Your task to perform on an android device: Show me recent news Image 0: 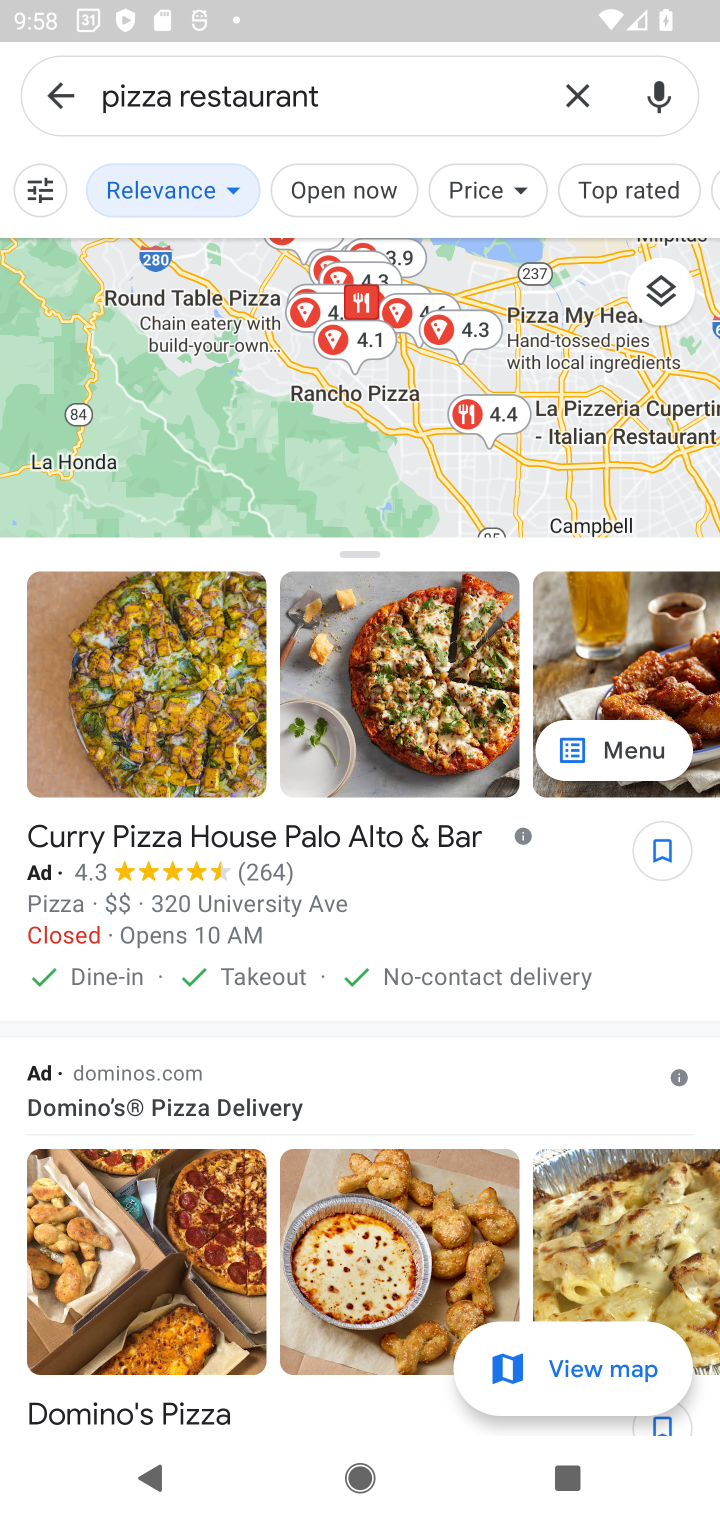
Step 0: press home button
Your task to perform on an android device: Show me recent news Image 1: 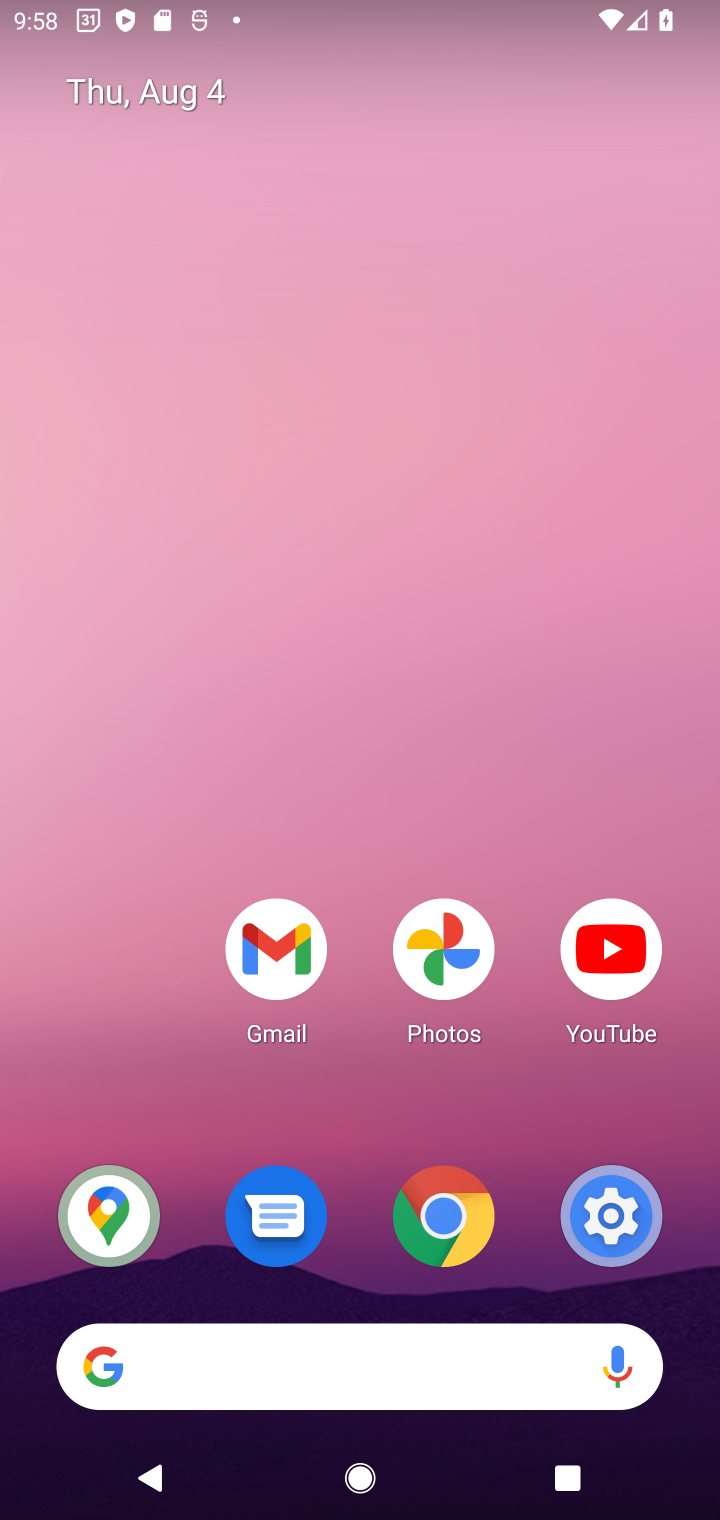
Step 1: drag from (220, 1368) to (427, 298)
Your task to perform on an android device: Show me recent news Image 2: 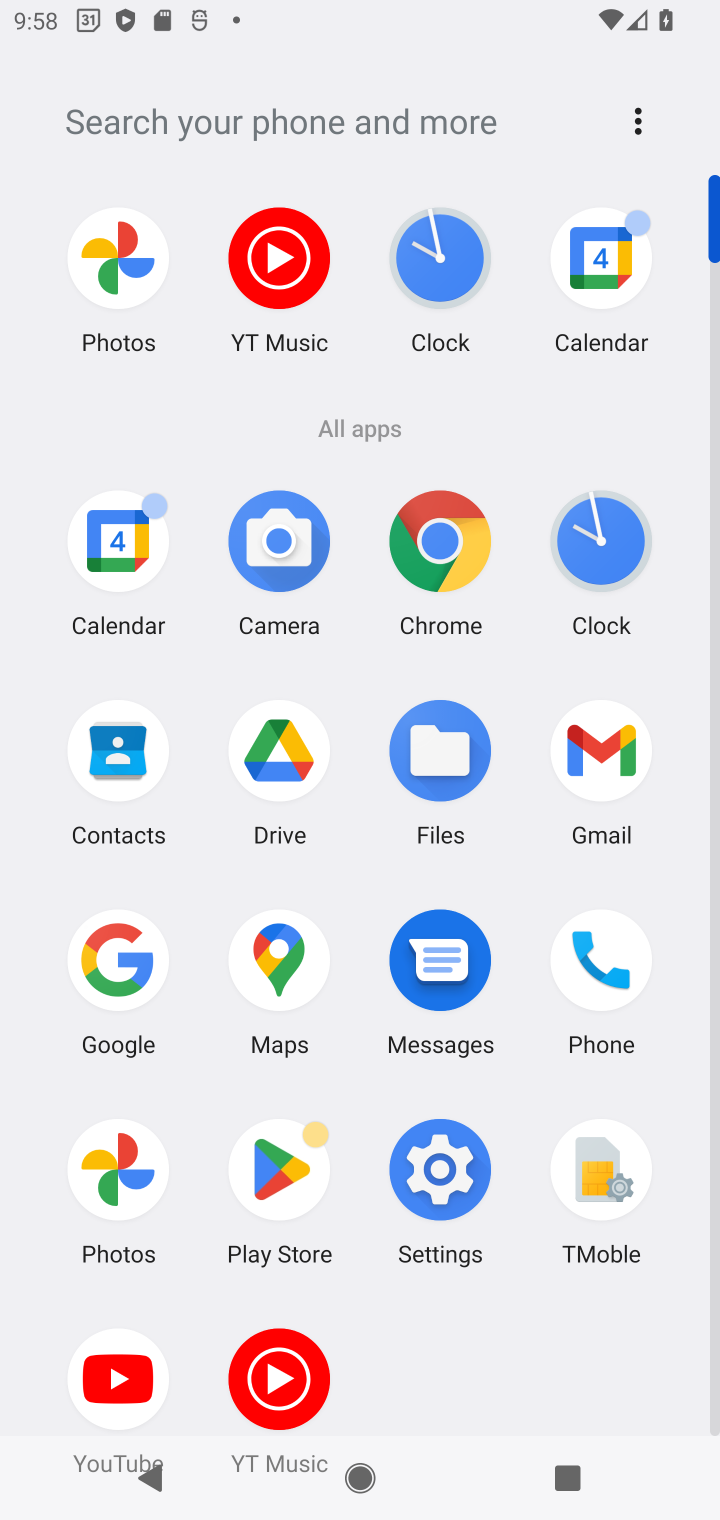
Step 2: click (116, 958)
Your task to perform on an android device: Show me recent news Image 3: 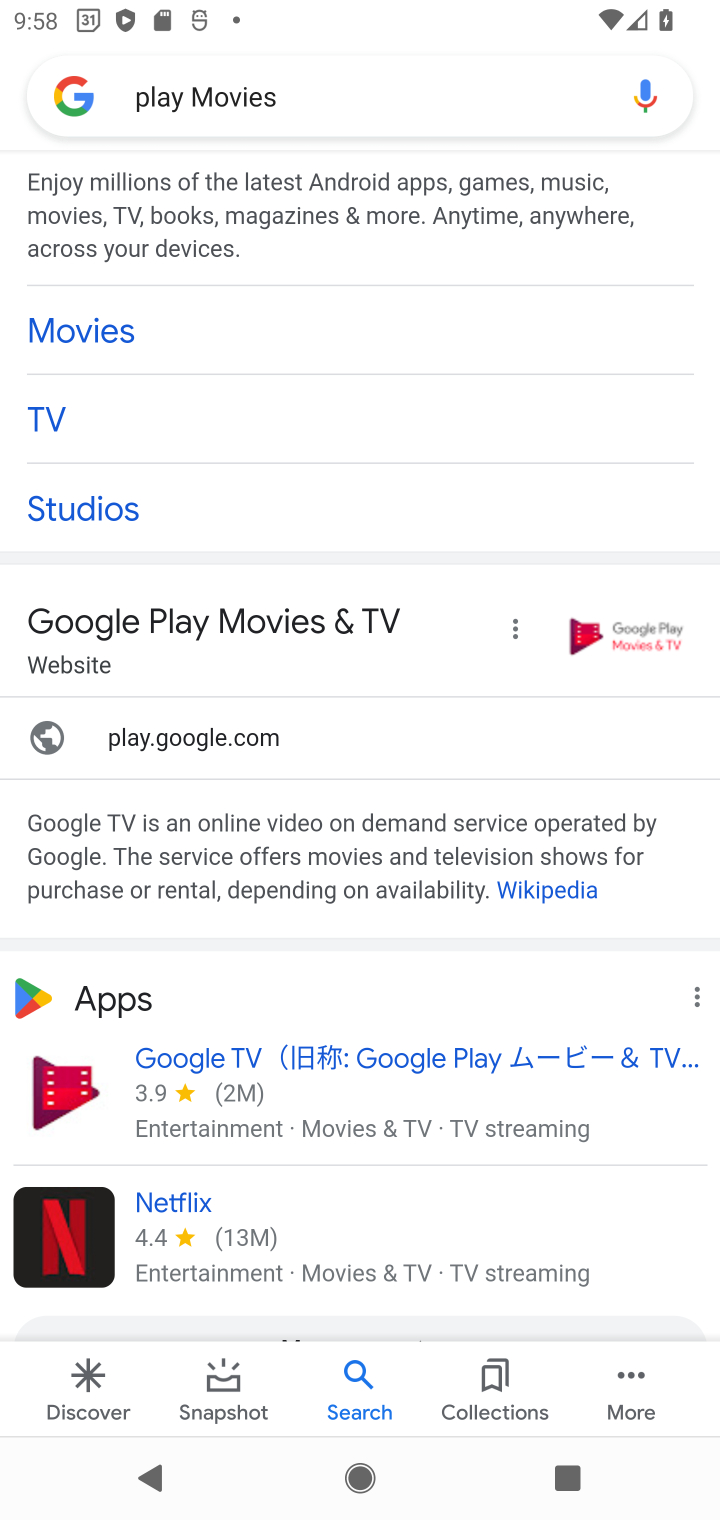
Step 3: click (355, 100)
Your task to perform on an android device: Show me recent news Image 4: 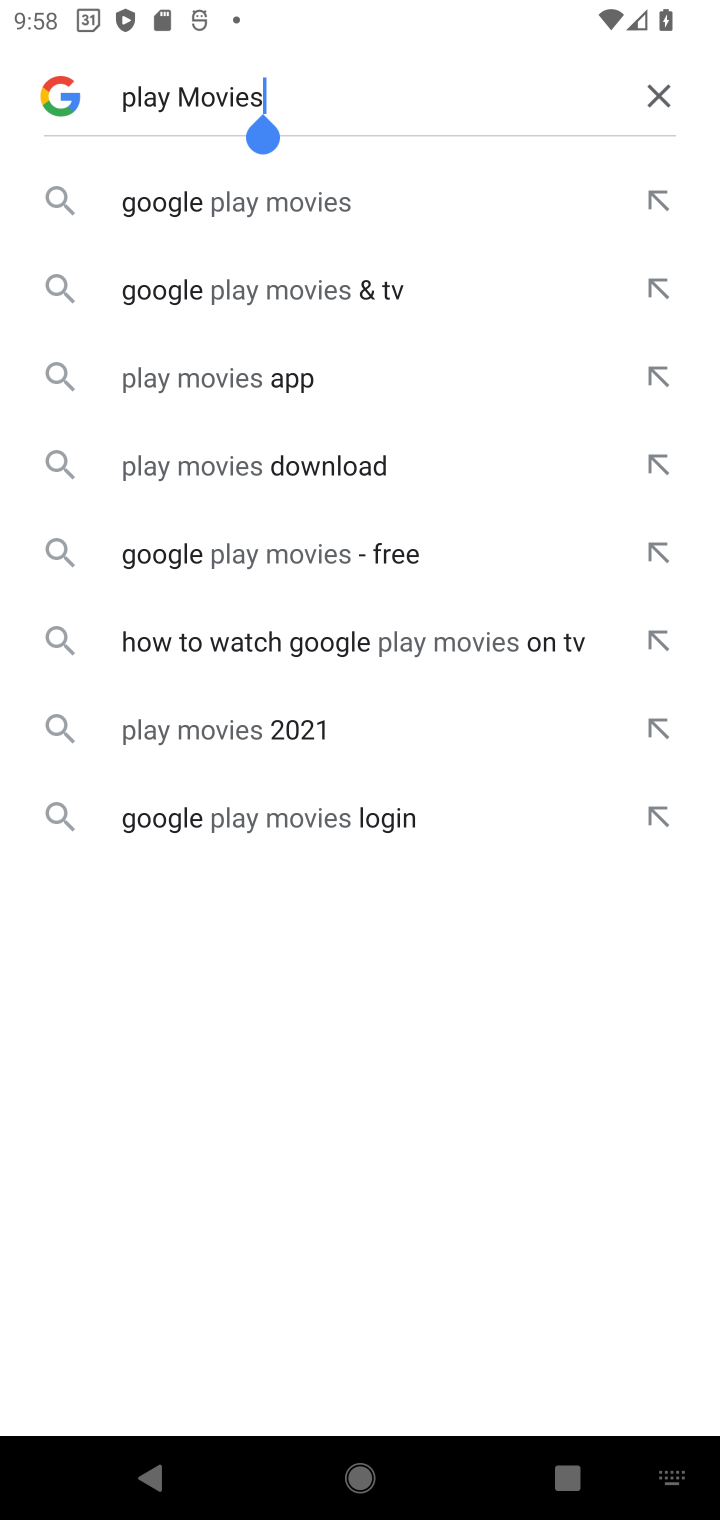
Step 4: click (661, 101)
Your task to perform on an android device: Show me recent news Image 5: 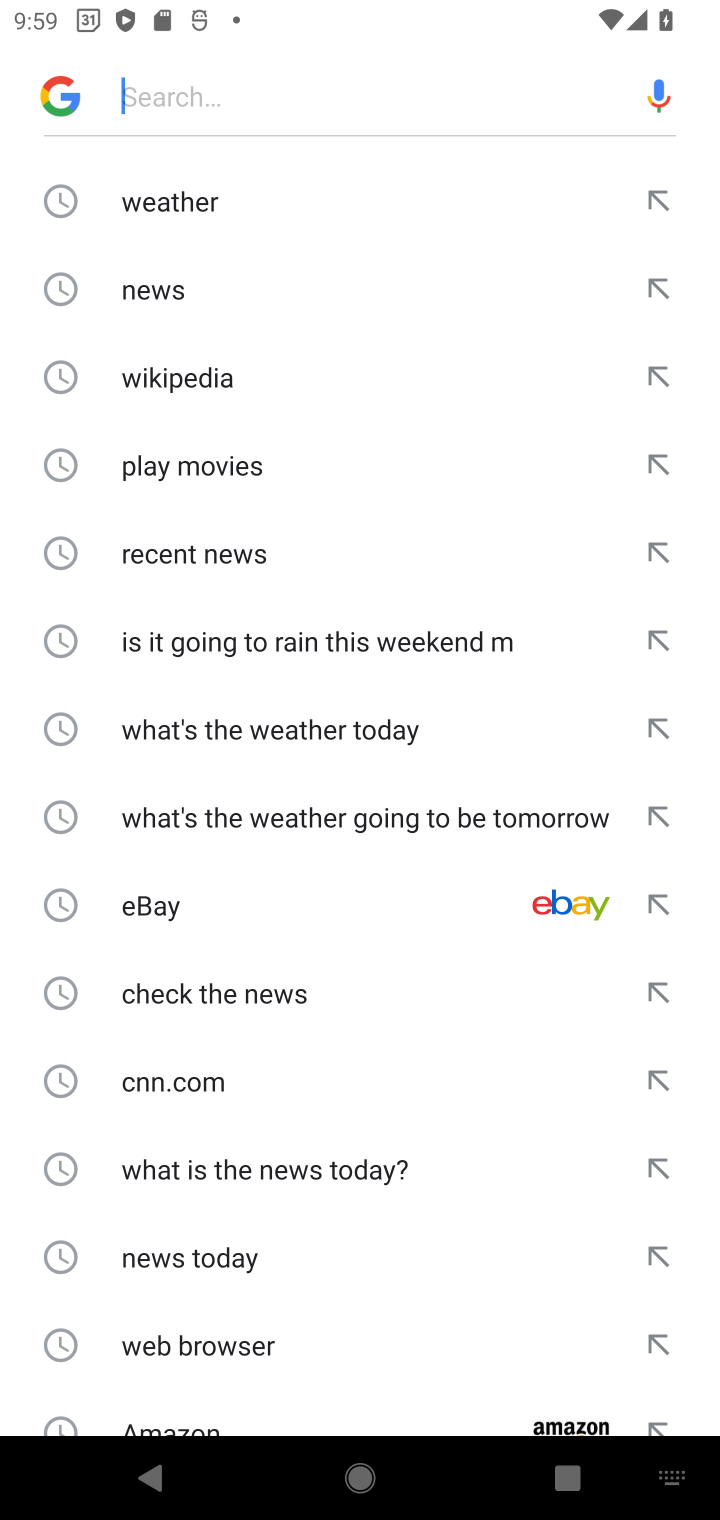
Step 5: type "recent news"
Your task to perform on an android device: Show me recent news Image 6: 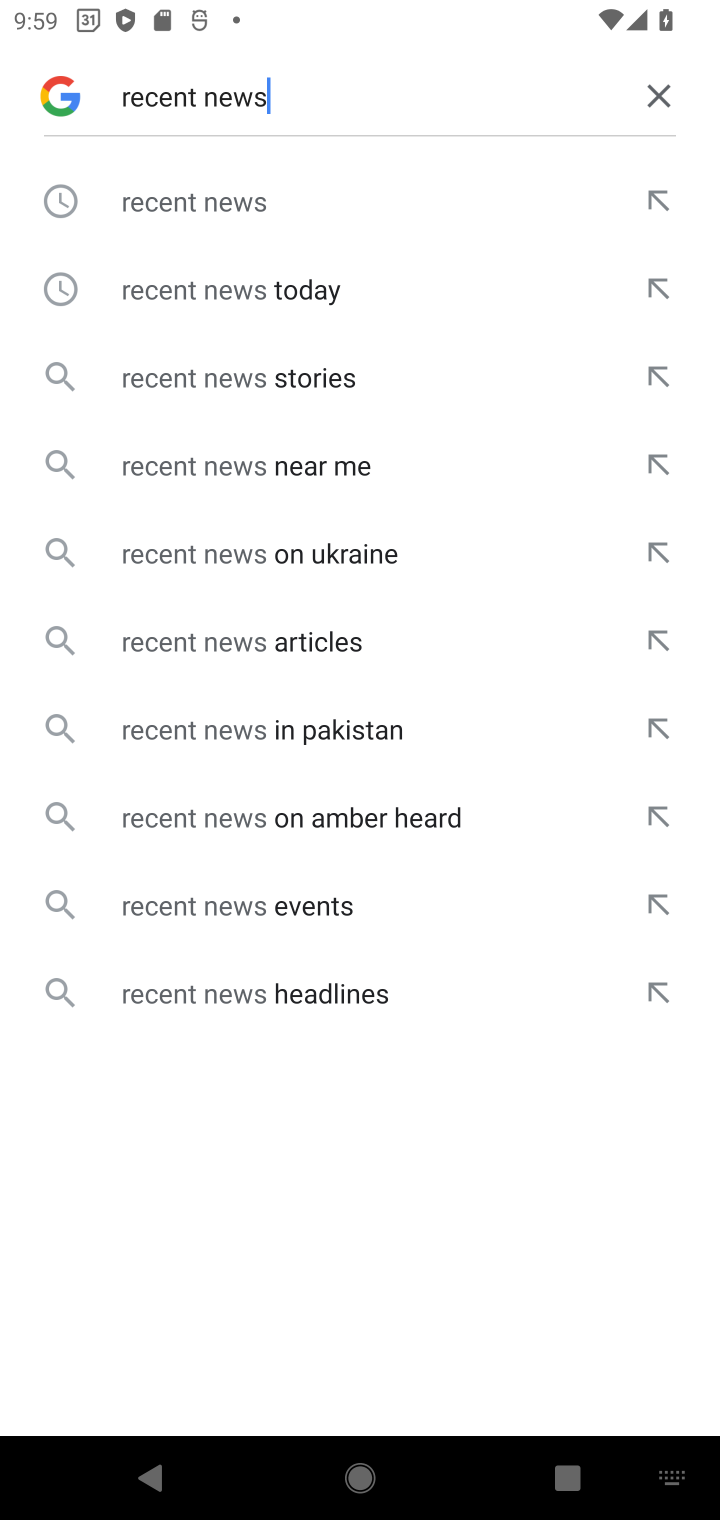
Step 6: click (155, 197)
Your task to perform on an android device: Show me recent news Image 7: 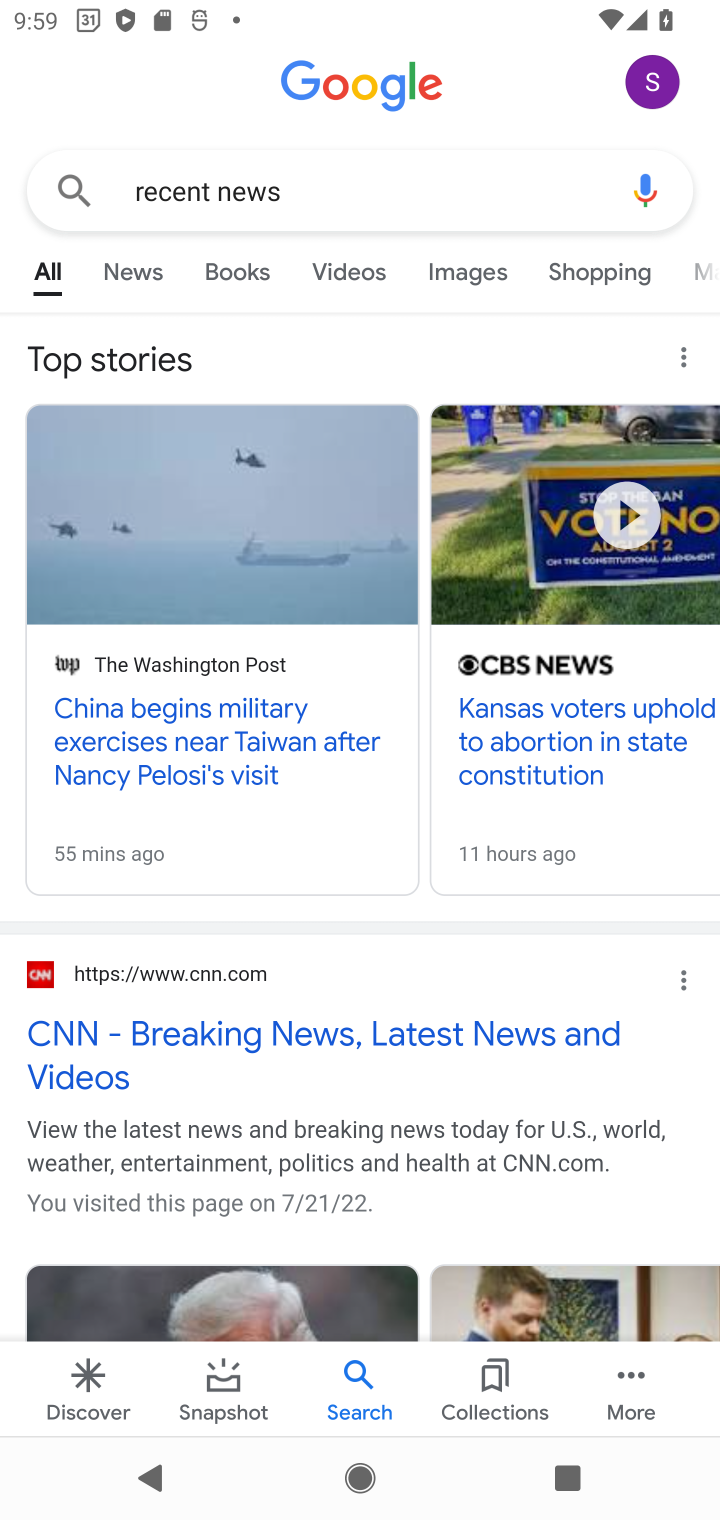
Step 7: click (211, 759)
Your task to perform on an android device: Show me recent news Image 8: 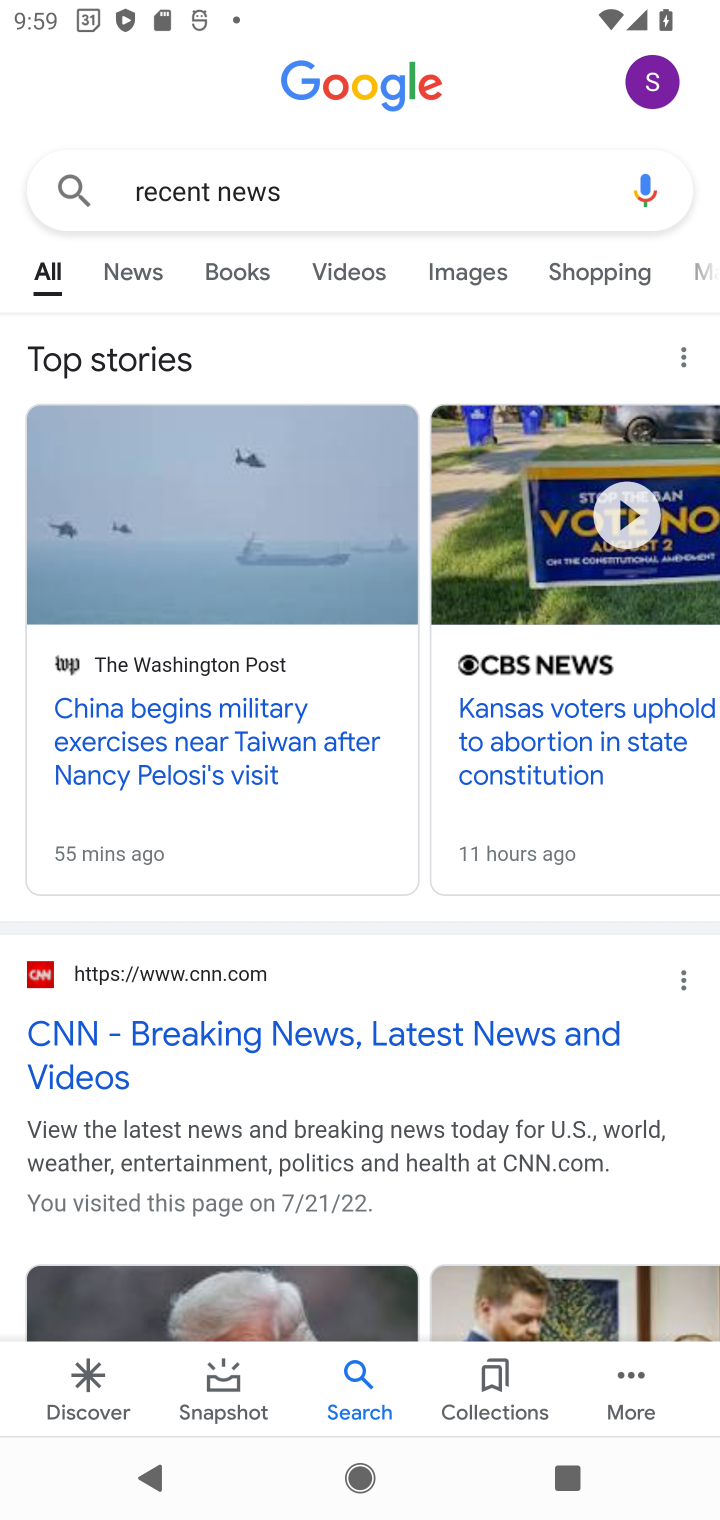
Step 8: click (282, 748)
Your task to perform on an android device: Show me recent news Image 9: 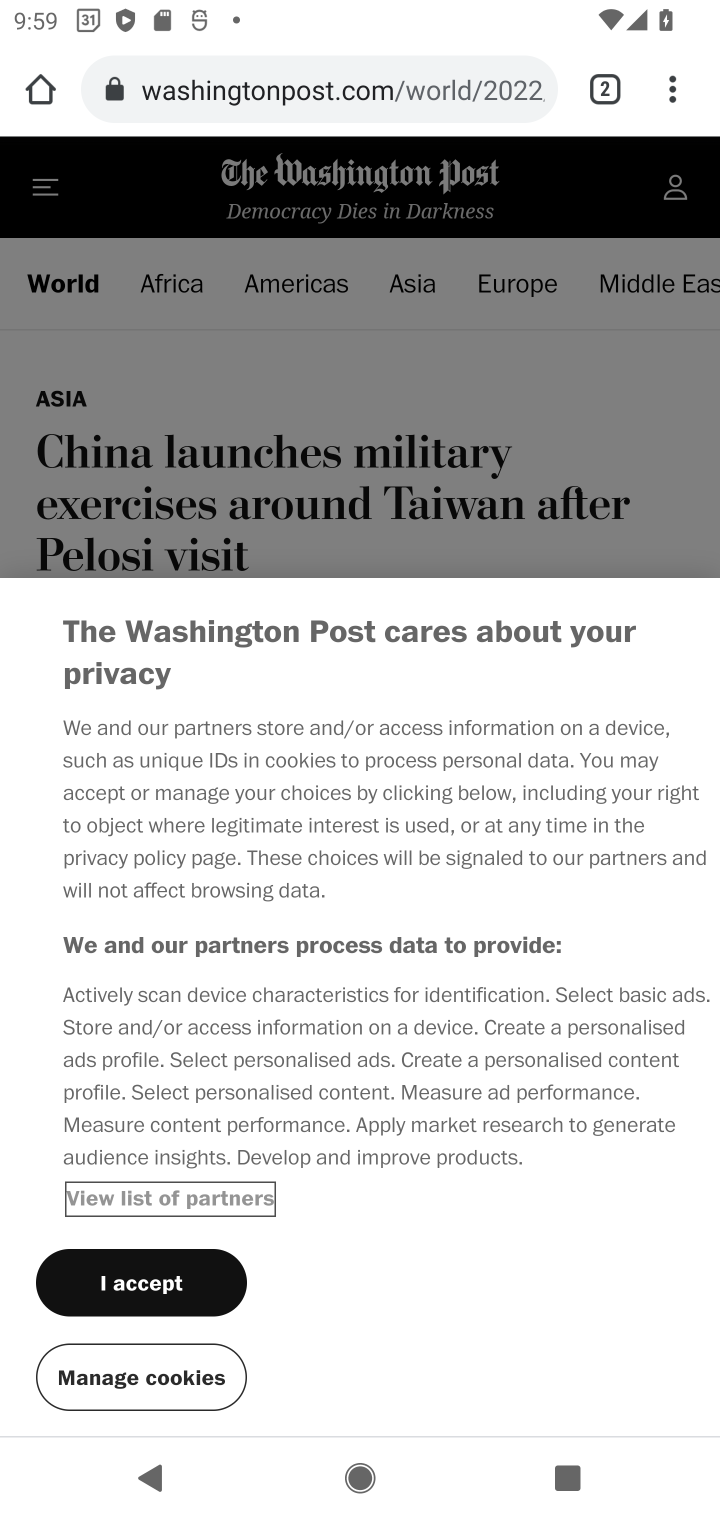
Step 9: click (149, 1294)
Your task to perform on an android device: Show me recent news Image 10: 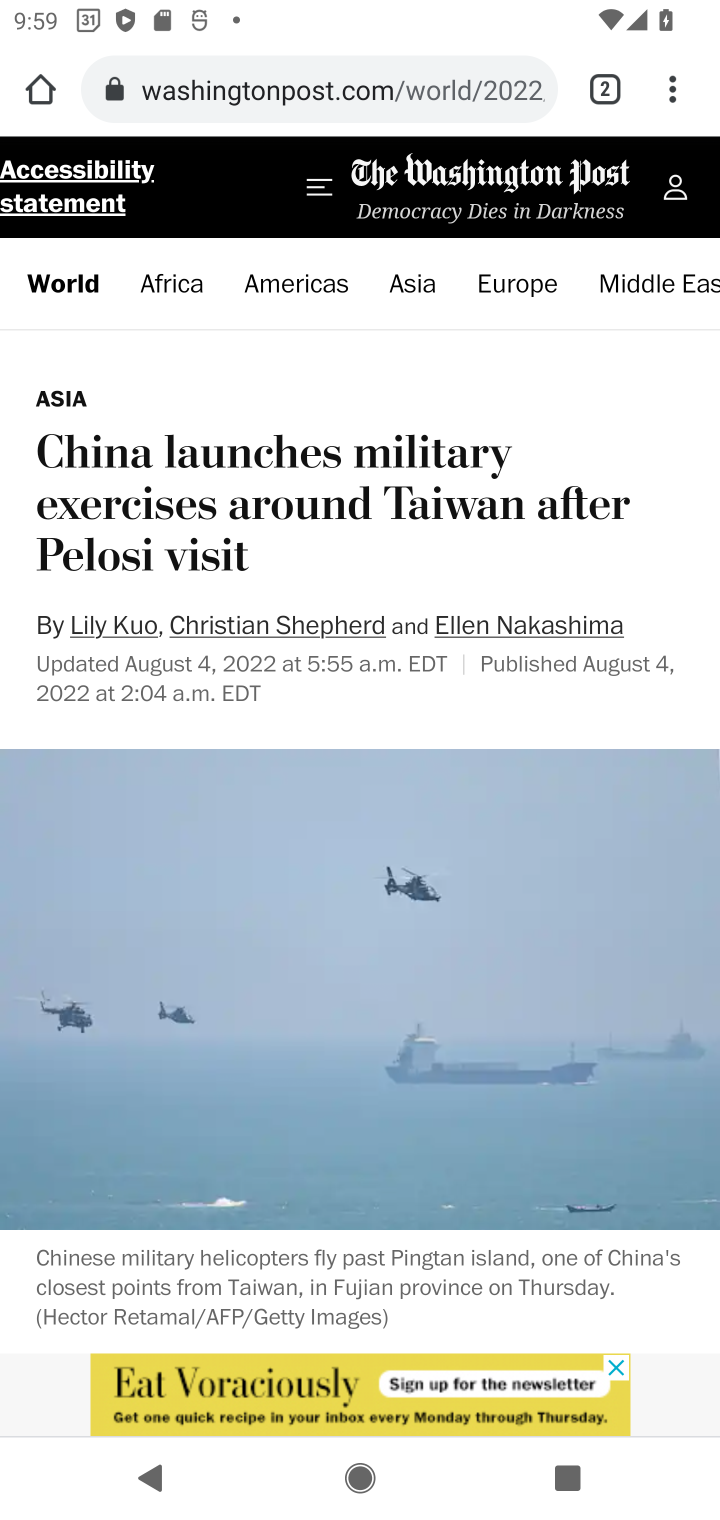
Step 10: task complete